Your task to perform on an android device: toggle javascript in the chrome app Image 0: 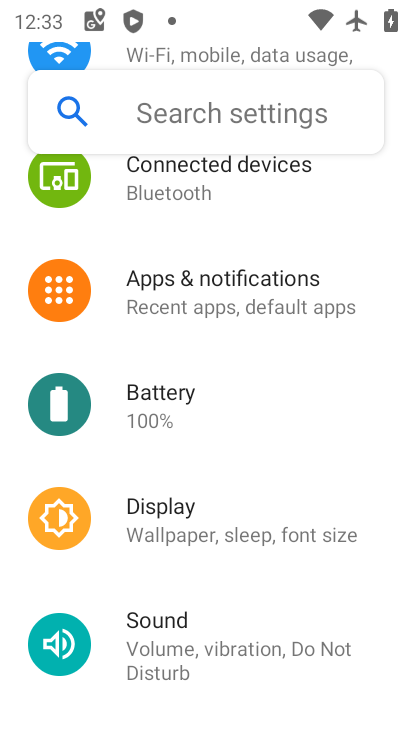
Step 0: drag from (265, 551) to (226, 88)
Your task to perform on an android device: toggle javascript in the chrome app Image 1: 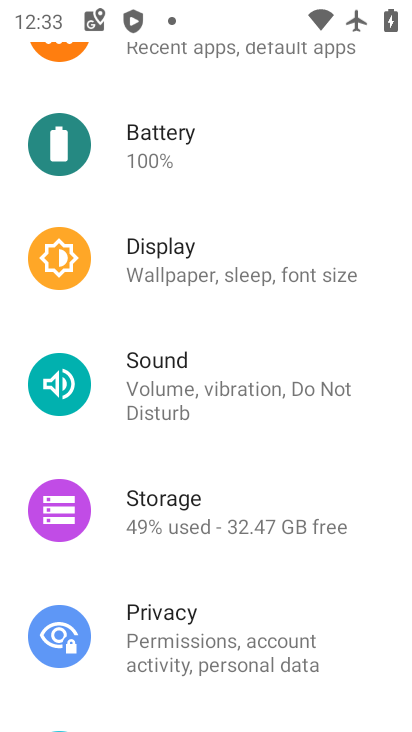
Step 1: drag from (246, 566) to (268, 254)
Your task to perform on an android device: toggle javascript in the chrome app Image 2: 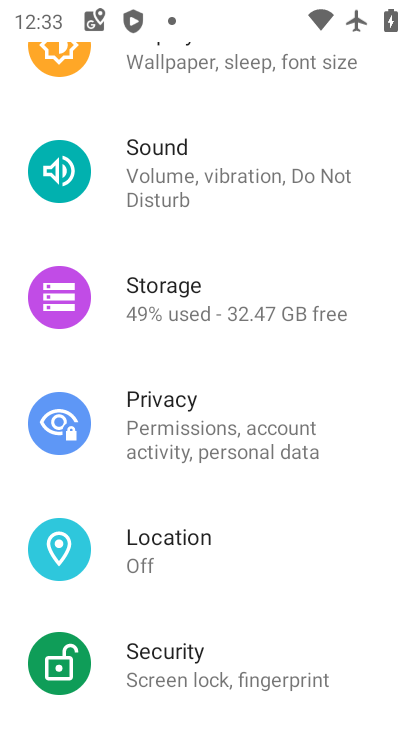
Step 2: press home button
Your task to perform on an android device: toggle javascript in the chrome app Image 3: 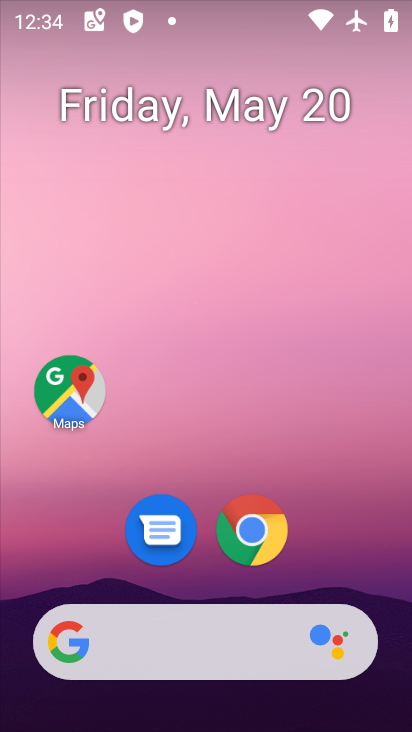
Step 3: click (247, 535)
Your task to perform on an android device: toggle javascript in the chrome app Image 4: 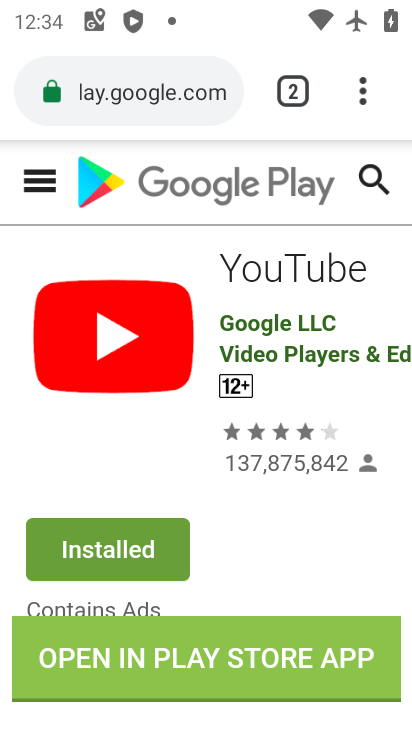
Step 4: click (368, 79)
Your task to perform on an android device: toggle javascript in the chrome app Image 5: 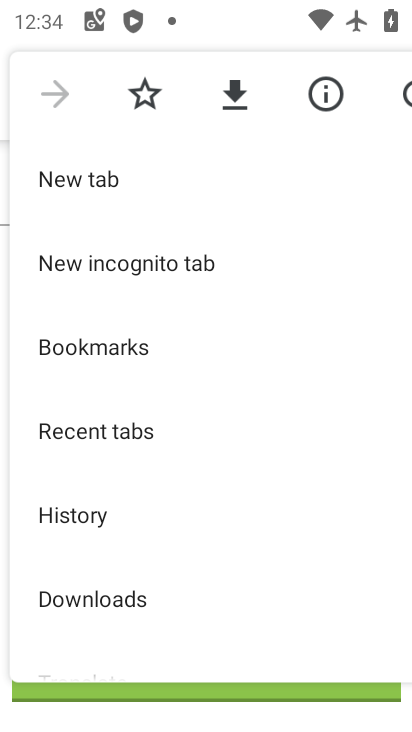
Step 5: drag from (186, 656) to (117, 171)
Your task to perform on an android device: toggle javascript in the chrome app Image 6: 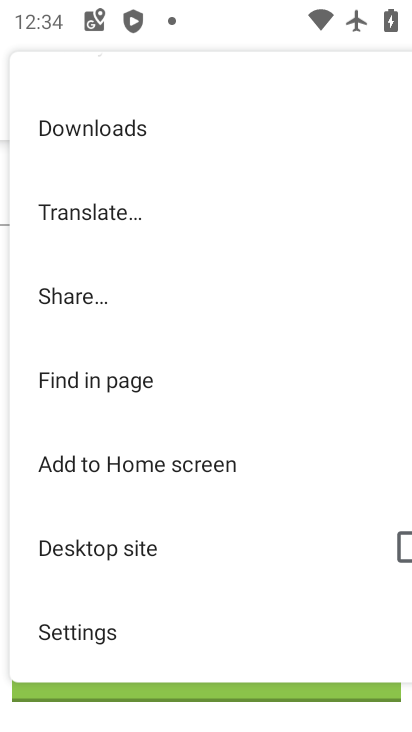
Step 6: click (133, 647)
Your task to perform on an android device: toggle javascript in the chrome app Image 7: 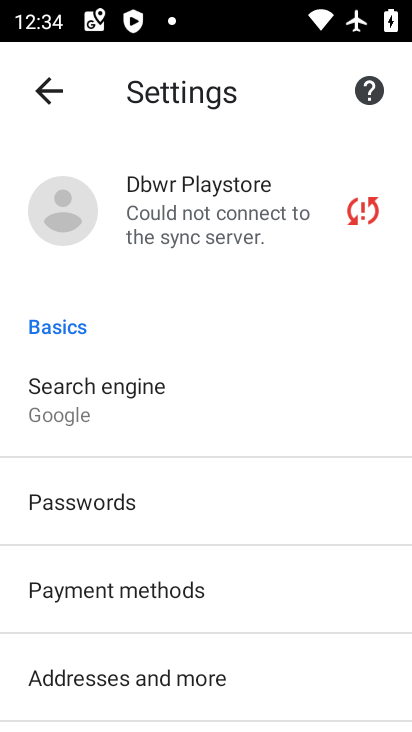
Step 7: drag from (279, 669) to (253, 298)
Your task to perform on an android device: toggle javascript in the chrome app Image 8: 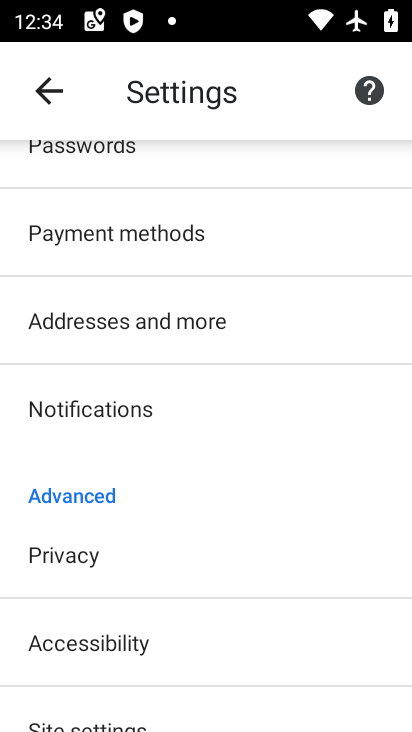
Step 8: click (181, 721)
Your task to perform on an android device: toggle javascript in the chrome app Image 9: 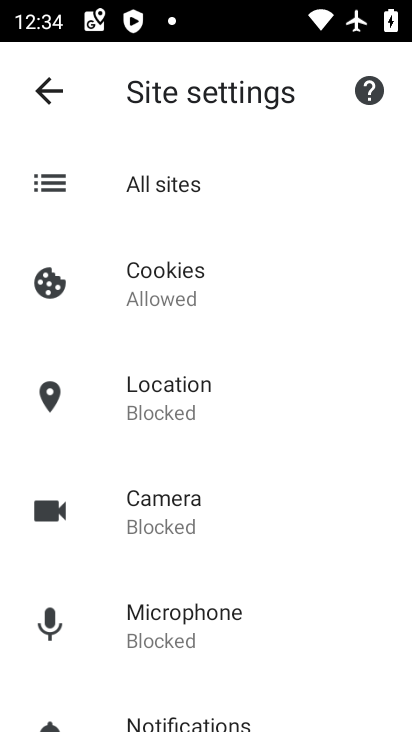
Step 9: drag from (276, 677) to (328, 134)
Your task to perform on an android device: toggle javascript in the chrome app Image 10: 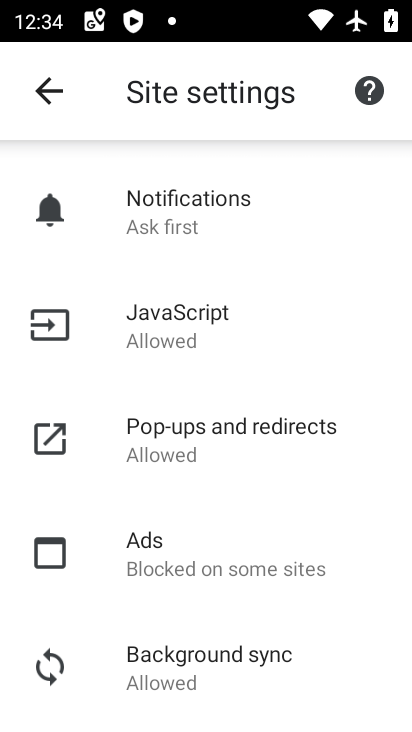
Step 10: click (152, 306)
Your task to perform on an android device: toggle javascript in the chrome app Image 11: 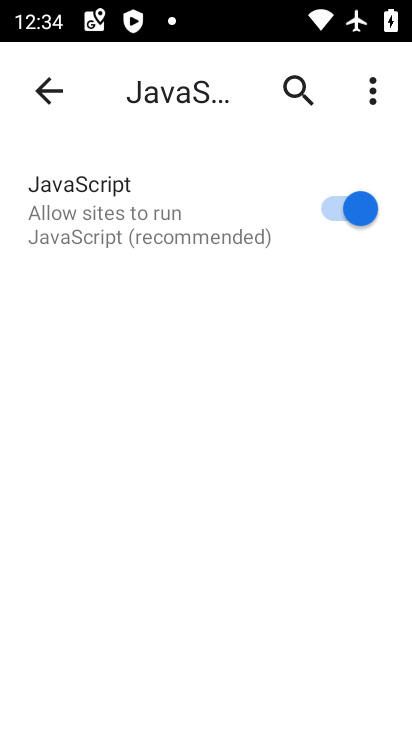
Step 11: click (354, 209)
Your task to perform on an android device: toggle javascript in the chrome app Image 12: 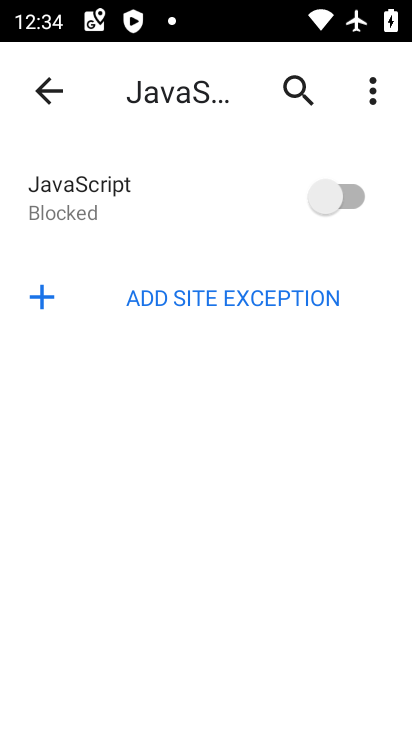
Step 12: task complete